Your task to perform on an android device: Search for Mexican restaurants on Maps Image 0: 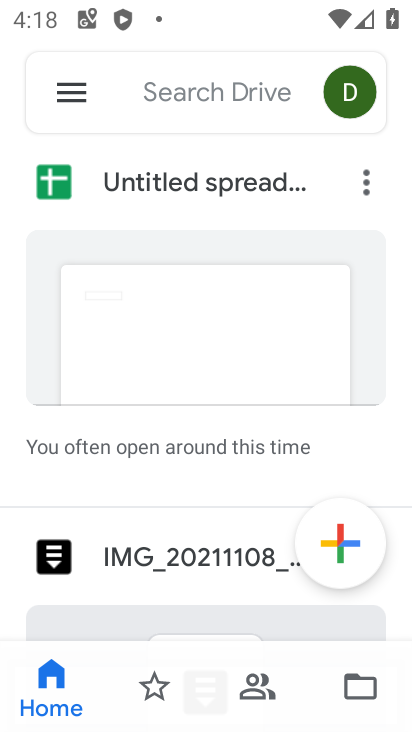
Step 0: press home button
Your task to perform on an android device: Search for Mexican restaurants on Maps Image 1: 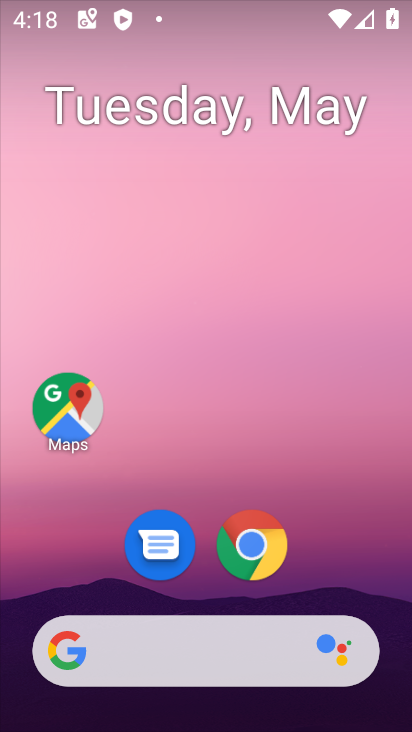
Step 1: click (66, 413)
Your task to perform on an android device: Search for Mexican restaurants on Maps Image 2: 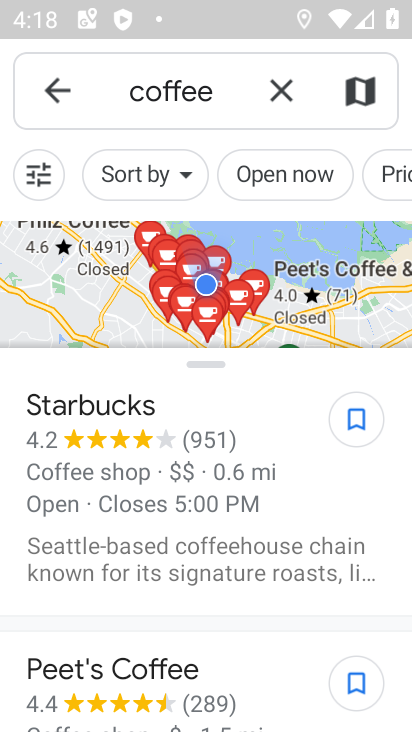
Step 2: click (282, 89)
Your task to perform on an android device: Search for Mexican restaurants on Maps Image 3: 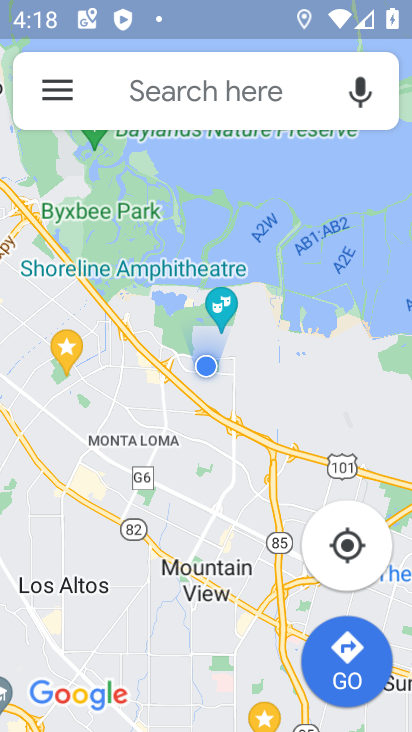
Step 3: click (260, 102)
Your task to perform on an android device: Search for Mexican restaurants on Maps Image 4: 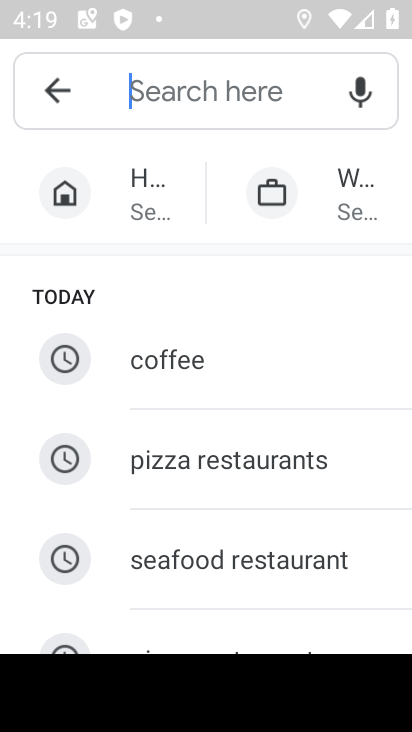
Step 4: type "Mexican restaurants"
Your task to perform on an android device: Search for Mexican restaurants on Maps Image 5: 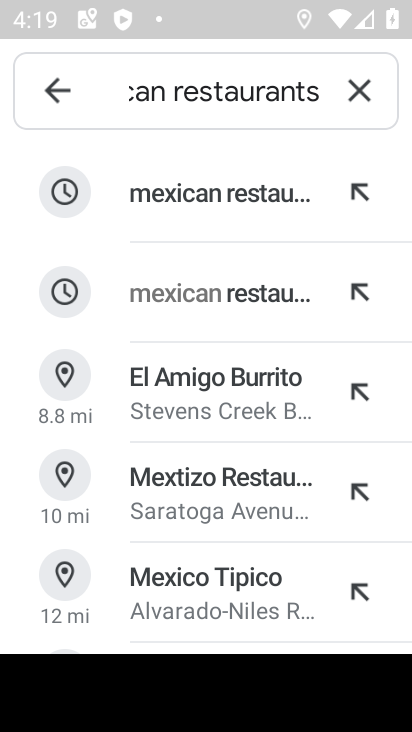
Step 5: click (232, 192)
Your task to perform on an android device: Search for Mexican restaurants on Maps Image 6: 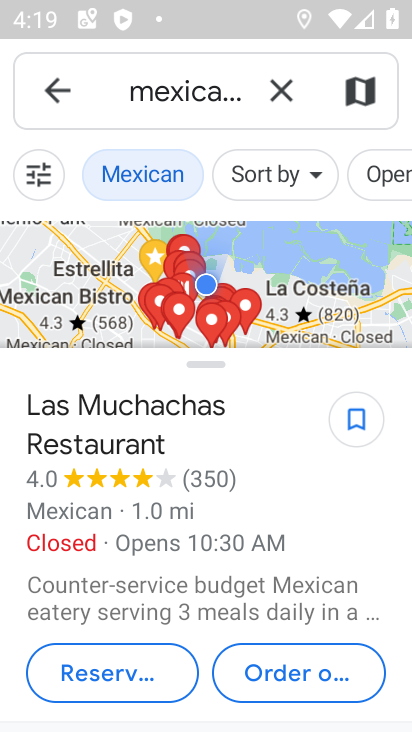
Step 6: task complete